Your task to perform on an android device: Show me popular videos on Youtube Image 0: 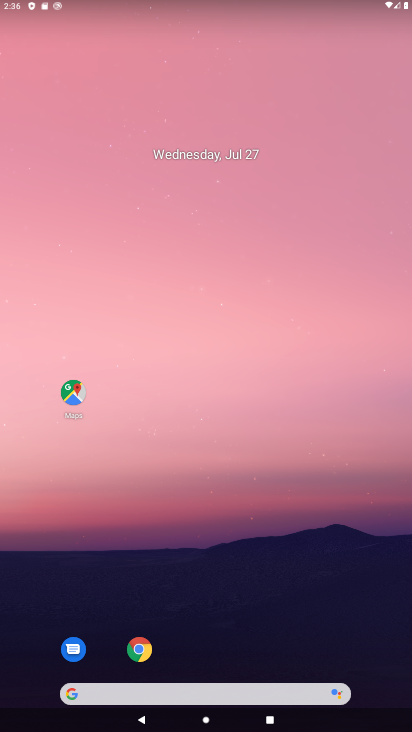
Step 0: drag from (358, 644) to (5, 241)
Your task to perform on an android device: Show me popular videos on Youtube Image 1: 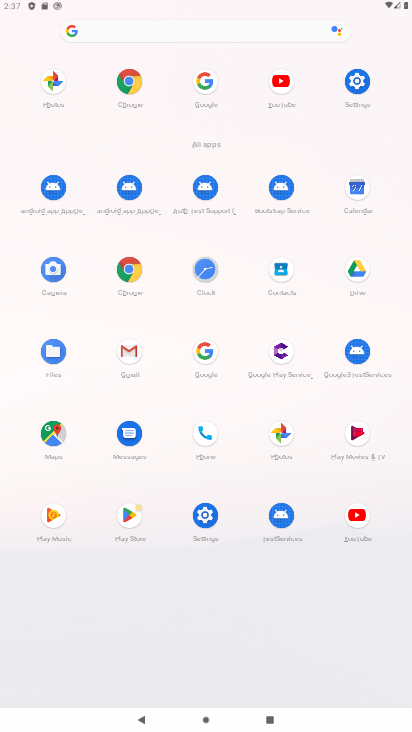
Step 1: click (352, 514)
Your task to perform on an android device: Show me popular videos on Youtube Image 2: 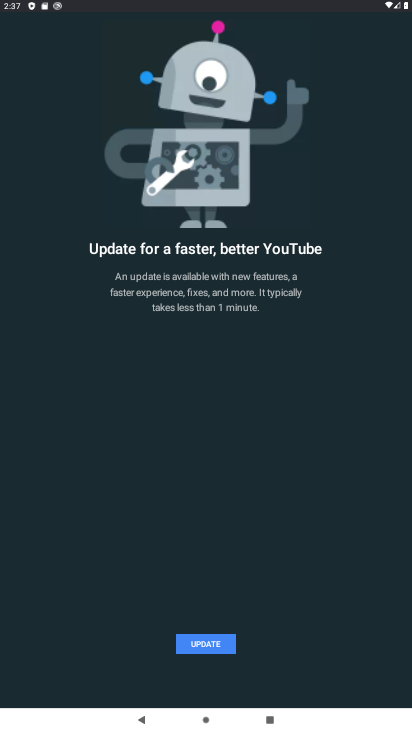
Step 2: task complete